Your task to perform on an android device: Open Yahoo.com Image 0: 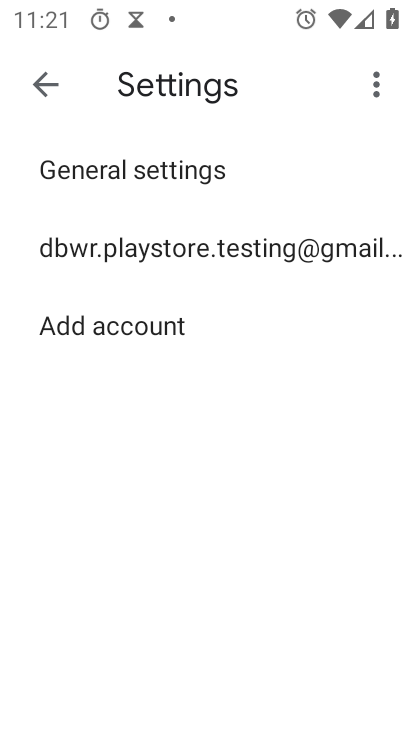
Step 0: press home button
Your task to perform on an android device: Open Yahoo.com Image 1: 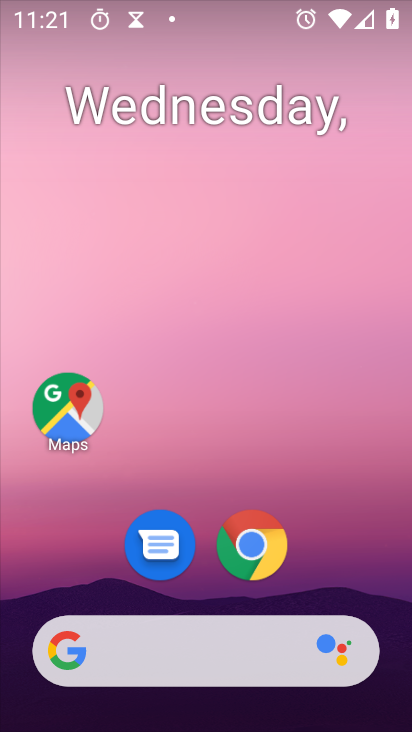
Step 1: click (263, 567)
Your task to perform on an android device: Open Yahoo.com Image 2: 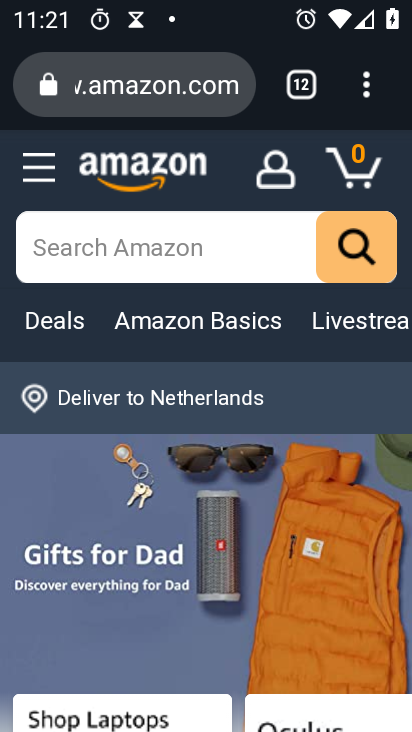
Step 2: drag from (362, 86) to (197, 181)
Your task to perform on an android device: Open Yahoo.com Image 3: 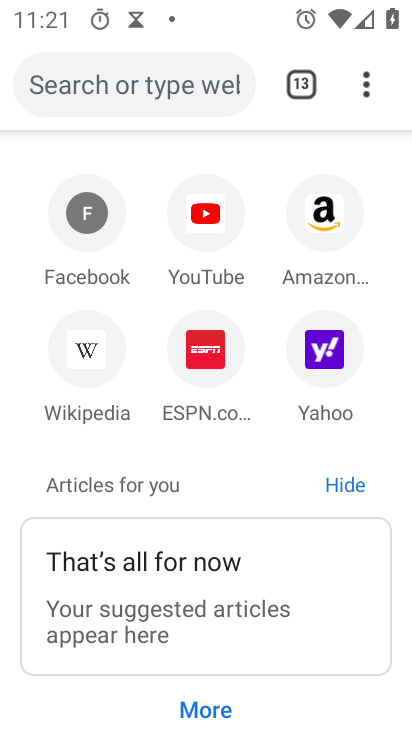
Step 3: click (324, 350)
Your task to perform on an android device: Open Yahoo.com Image 4: 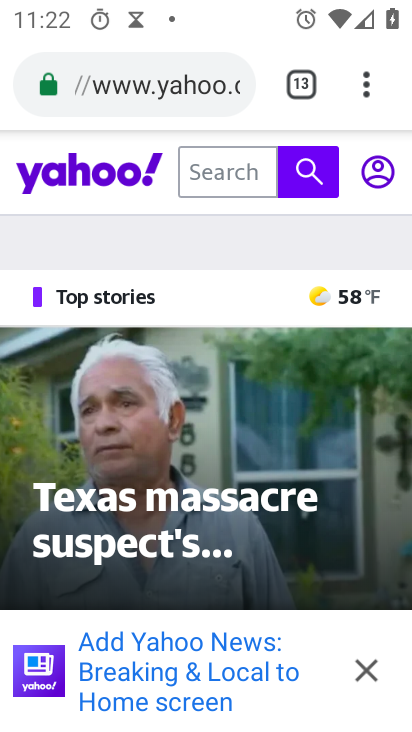
Step 4: task complete